Your task to perform on an android device: turn off priority inbox in the gmail app Image 0: 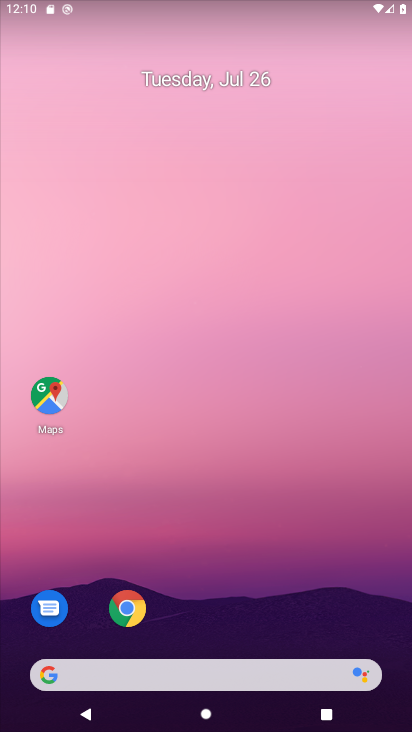
Step 0: drag from (211, 637) to (253, 9)
Your task to perform on an android device: turn off priority inbox in the gmail app Image 1: 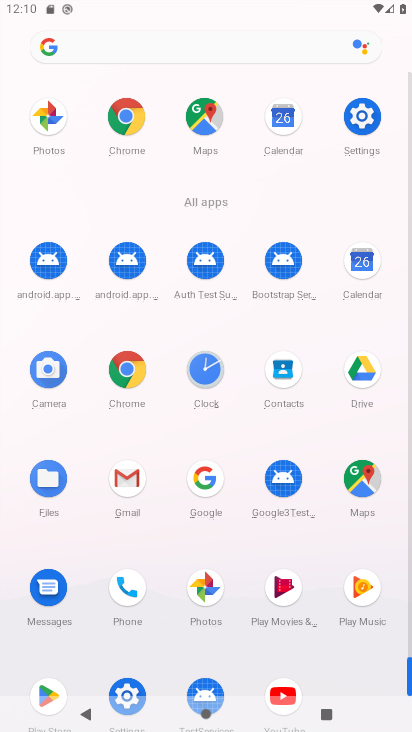
Step 1: click (133, 495)
Your task to perform on an android device: turn off priority inbox in the gmail app Image 2: 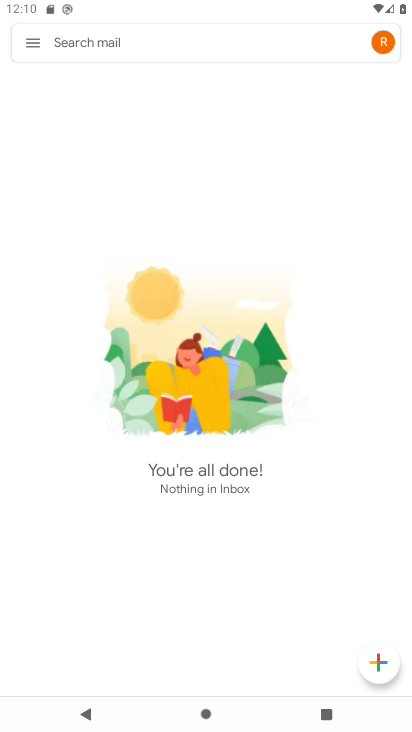
Step 2: click (29, 40)
Your task to perform on an android device: turn off priority inbox in the gmail app Image 3: 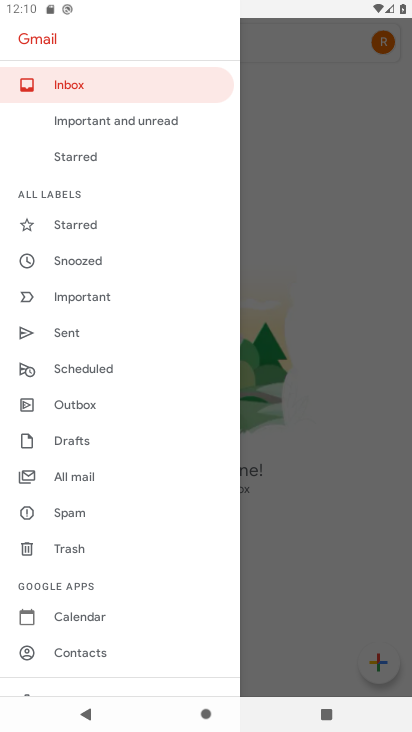
Step 3: drag from (118, 609) to (126, 364)
Your task to perform on an android device: turn off priority inbox in the gmail app Image 4: 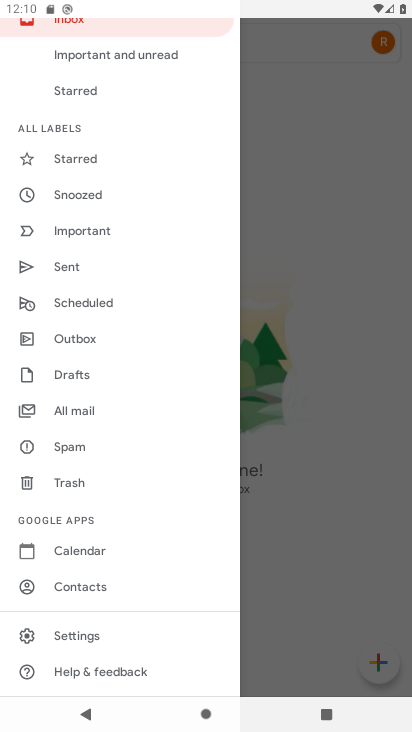
Step 4: click (77, 637)
Your task to perform on an android device: turn off priority inbox in the gmail app Image 5: 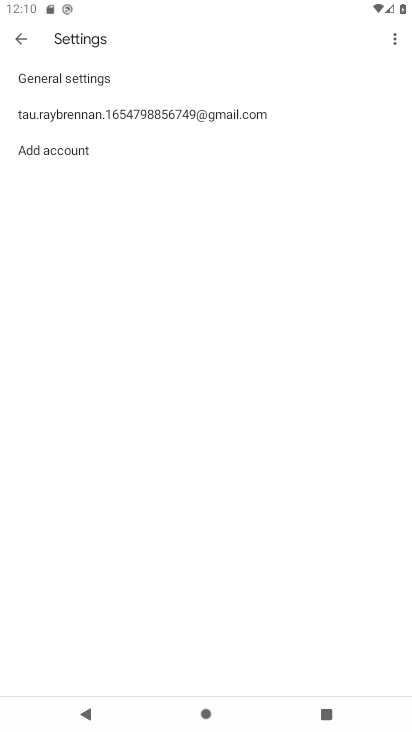
Step 5: click (142, 115)
Your task to perform on an android device: turn off priority inbox in the gmail app Image 6: 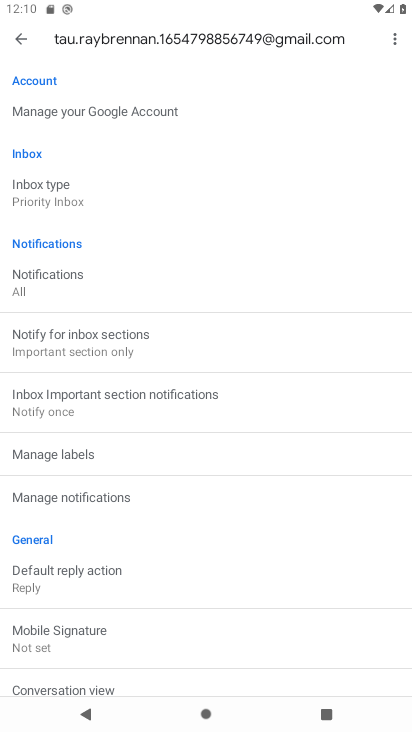
Step 6: click (56, 200)
Your task to perform on an android device: turn off priority inbox in the gmail app Image 7: 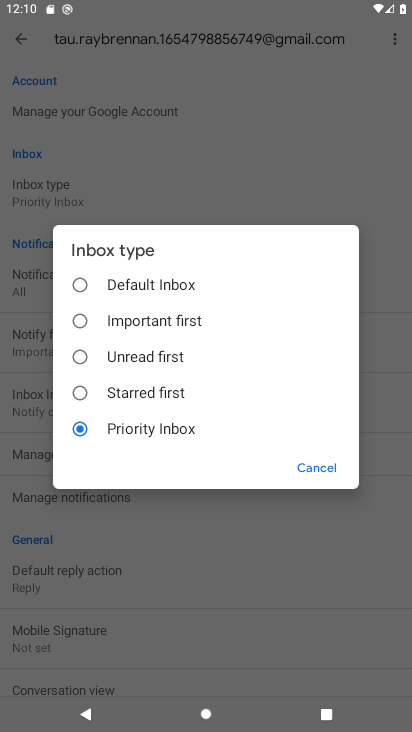
Step 7: click (134, 290)
Your task to perform on an android device: turn off priority inbox in the gmail app Image 8: 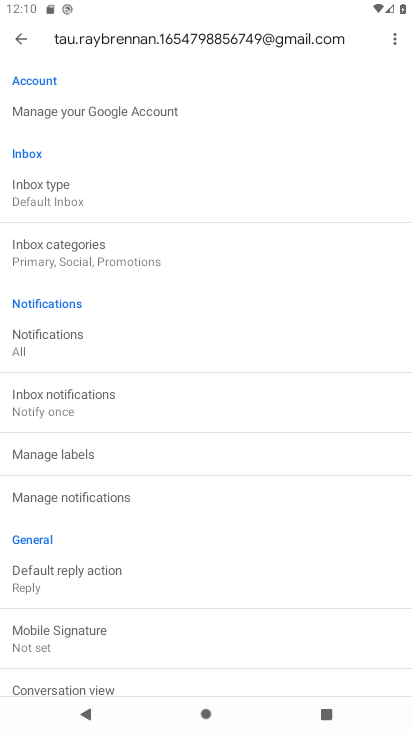
Step 8: task complete